Your task to perform on an android device: add a contact in the contacts app Image 0: 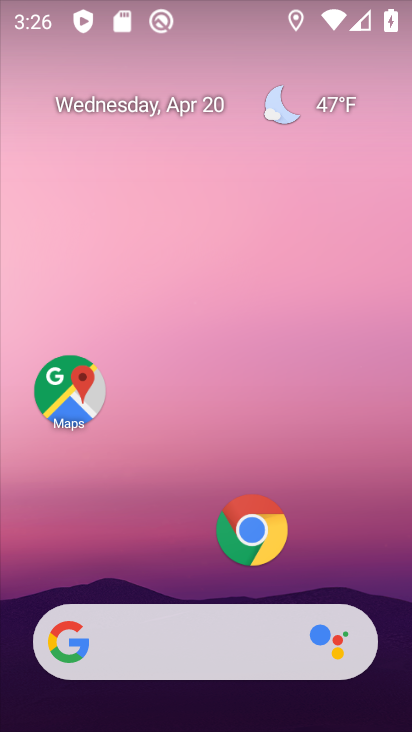
Step 0: drag from (165, 439) to (273, 19)
Your task to perform on an android device: add a contact in the contacts app Image 1: 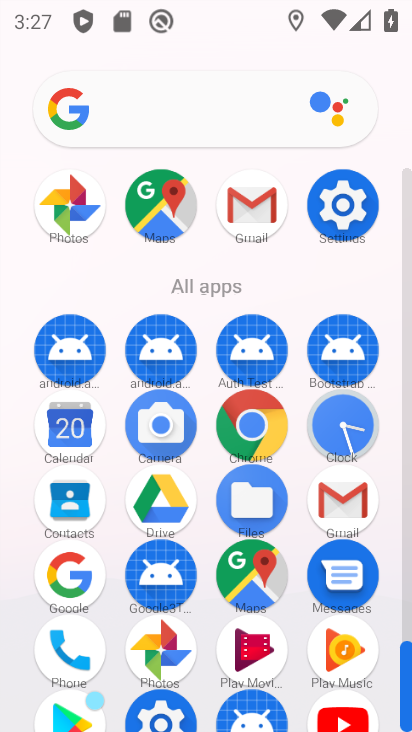
Step 1: click (76, 493)
Your task to perform on an android device: add a contact in the contacts app Image 2: 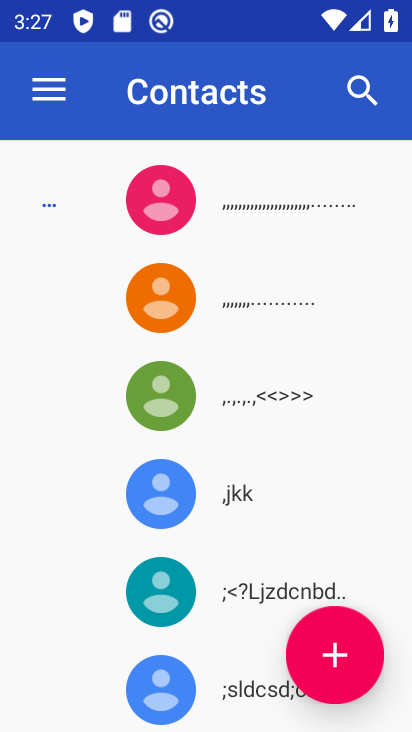
Step 2: click (335, 650)
Your task to perform on an android device: add a contact in the contacts app Image 3: 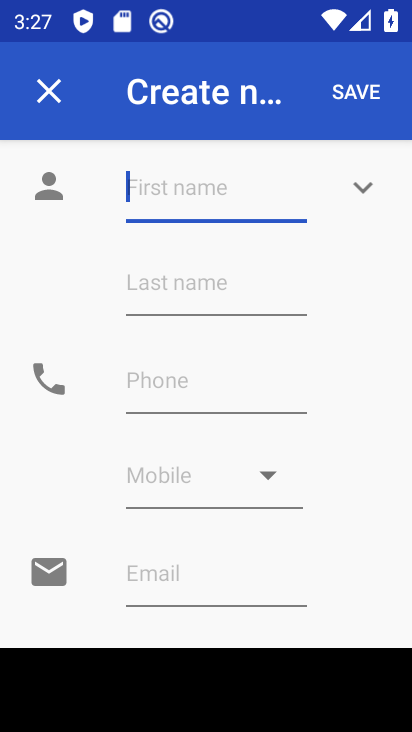
Step 3: click (181, 174)
Your task to perform on an android device: add a contact in the contacts app Image 4: 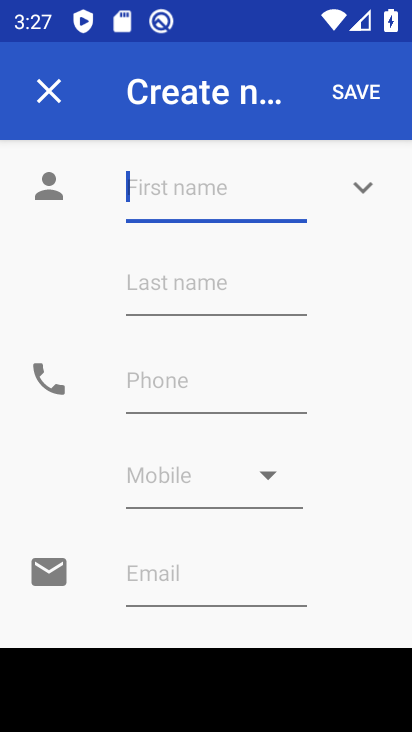
Step 4: type "hghh"
Your task to perform on an android device: add a contact in the contacts app Image 5: 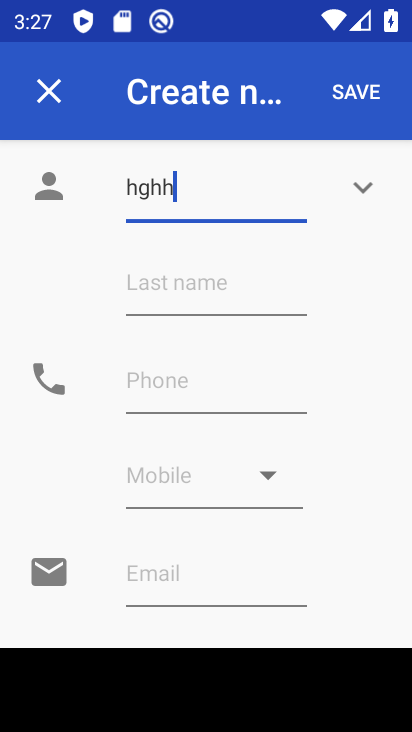
Step 5: click (174, 383)
Your task to perform on an android device: add a contact in the contacts app Image 6: 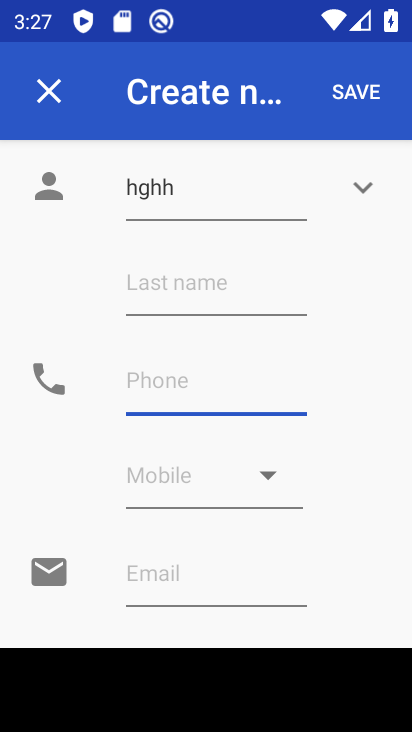
Step 6: type "6655"
Your task to perform on an android device: add a contact in the contacts app Image 7: 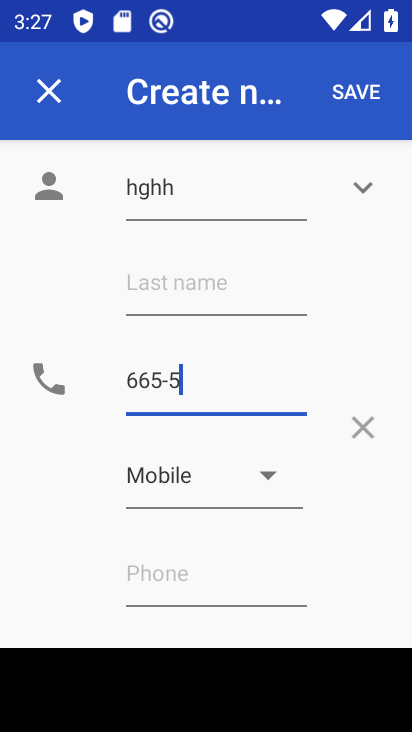
Step 7: click (356, 94)
Your task to perform on an android device: add a contact in the contacts app Image 8: 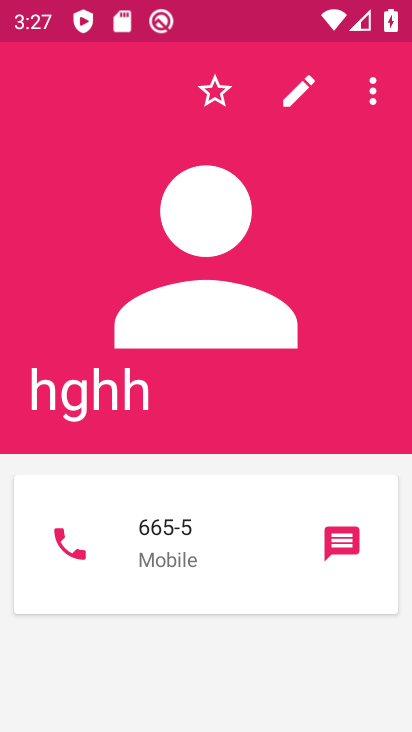
Step 8: task complete